Your task to perform on an android device: change your default location settings in chrome Image 0: 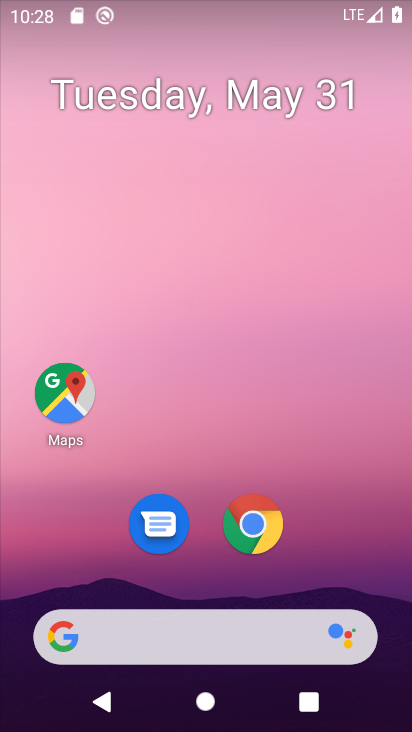
Step 0: click (262, 533)
Your task to perform on an android device: change your default location settings in chrome Image 1: 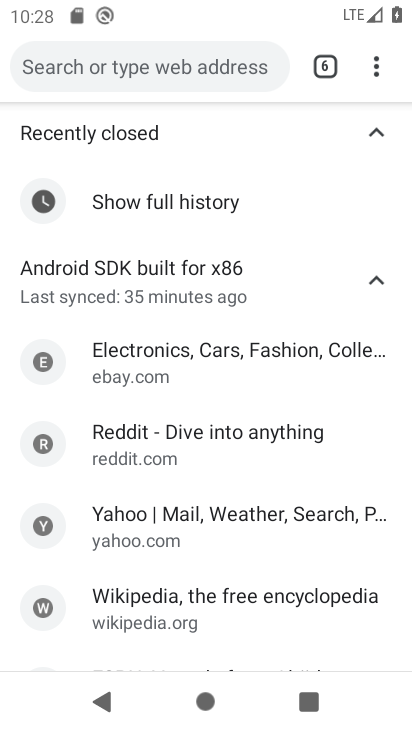
Step 1: click (374, 61)
Your task to perform on an android device: change your default location settings in chrome Image 2: 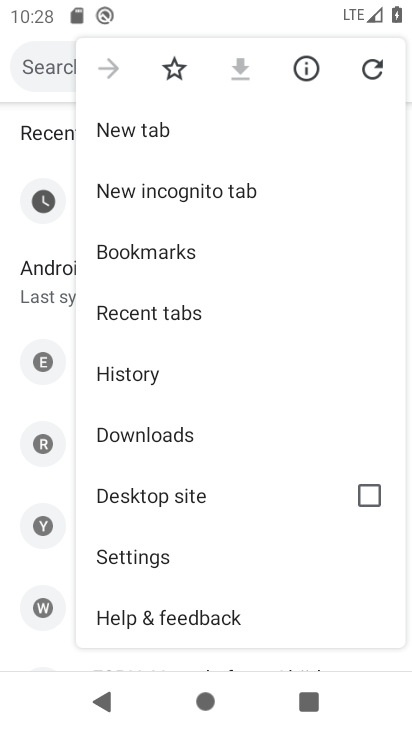
Step 2: click (206, 553)
Your task to perform on an android device: change your default location settings in chrome Image 3: 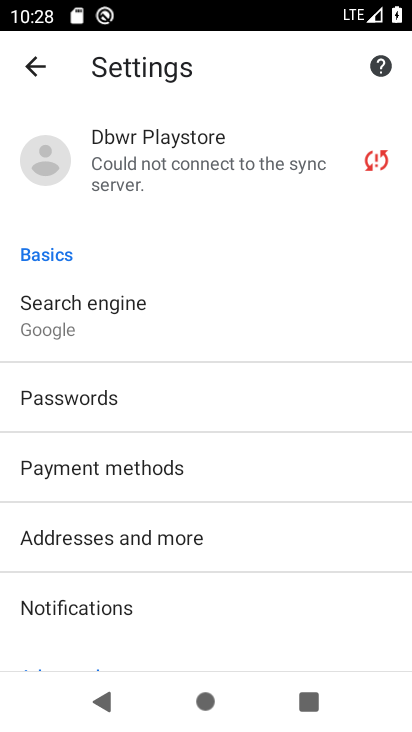
Step 3: drag from (263, 467) to (267, 192)
Your task to perform on an android device: change your default location settings in chrome Image 4: 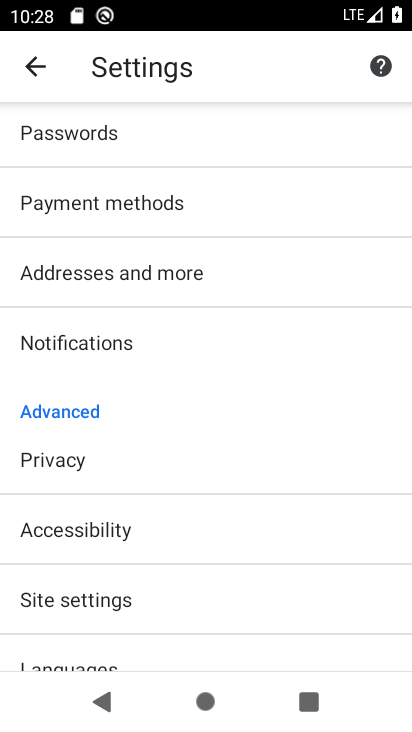
Step 4: click (220, 583)
Your task to perform on an android device: change your default location settings in chrome Image 5: 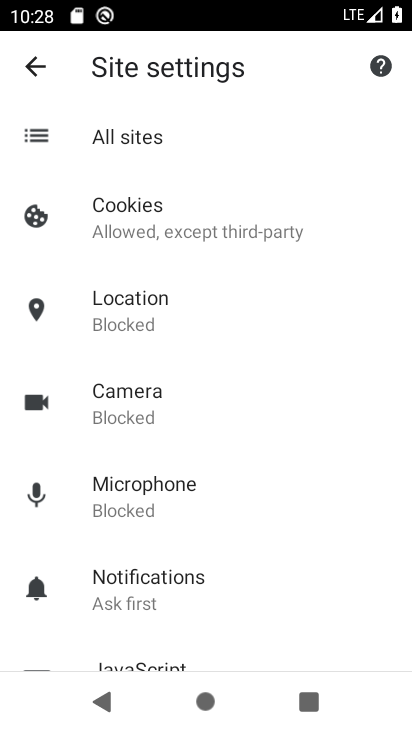
Step 5: click (166, 307)
Your task to perform on an android device: change your default location settings in chrome Image 6: 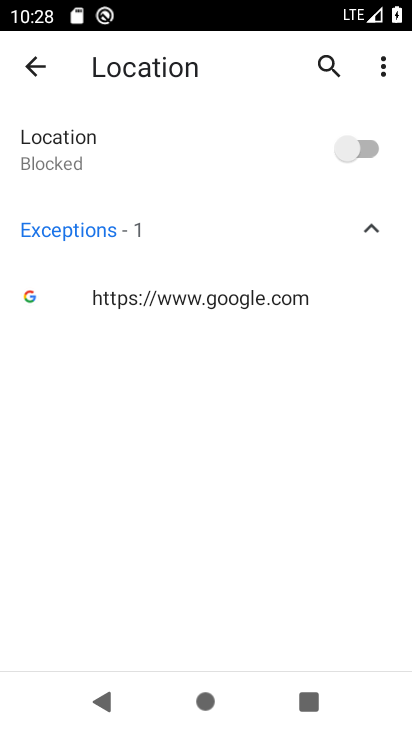
Step 6: click (363, 144)
Your task to perform on an android device: change your default location settings in chrome Image 7: 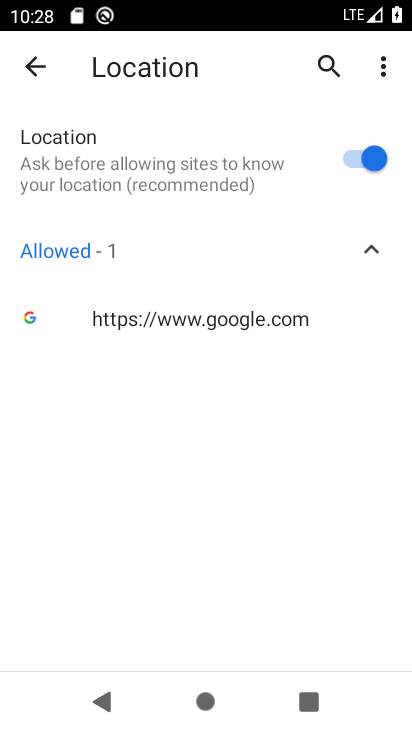
Step 7: task complete